Your task to perform on an android device: turn off javascript in the chrome app Image 0: 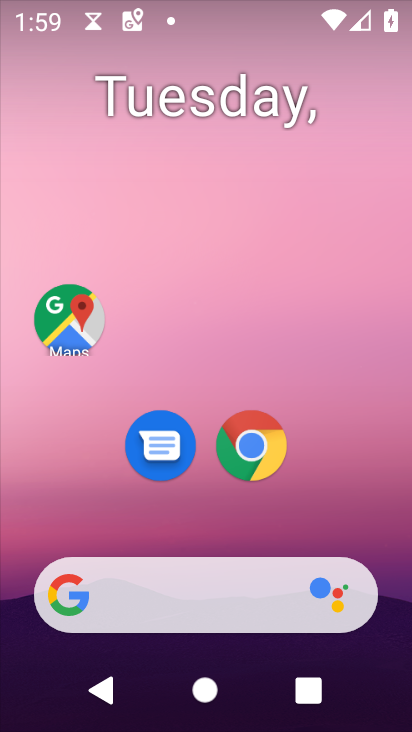
Step 0: click (235, 420)
Your task to perform on an android device: turn off javascript in the chrome app Image 1: 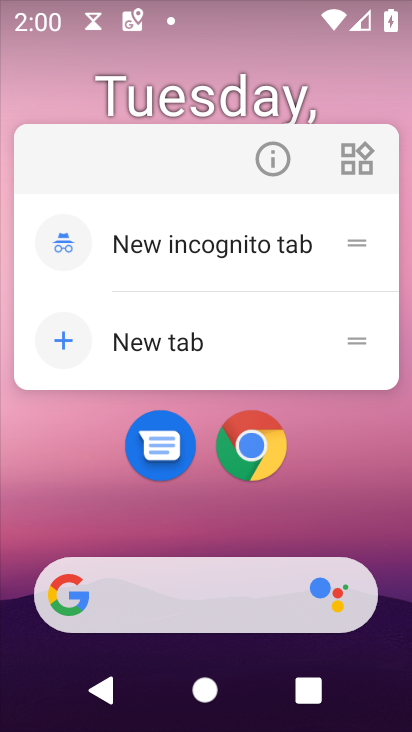
Step 1: click (255, 449)
Your task to perform on an android device: turn off javascript in the chrome app Image 2: 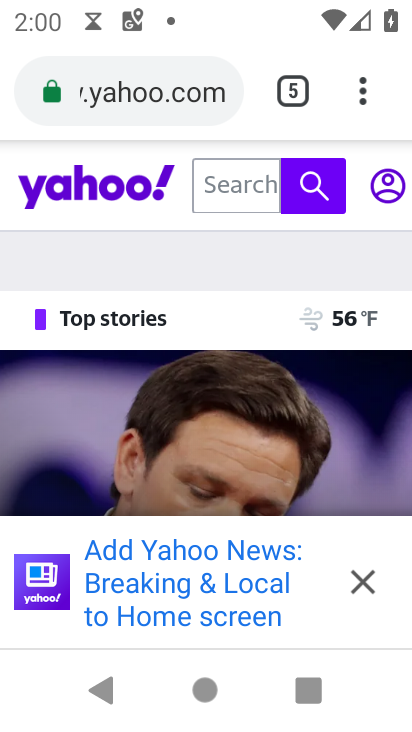
Step 2: drag from (367, 97) to (153, 477)
Your task to perform on an android device: turn off javascript in the chrome app Image 3: 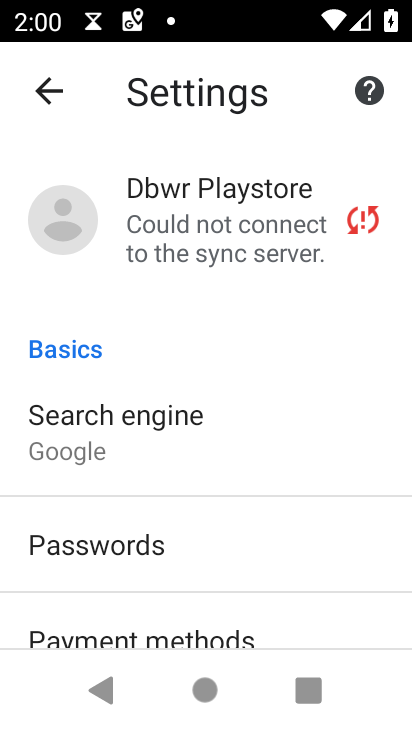
Step 3: drag from (220, 584) to (135, 250)
Your task to perform on an android device: turn off javascript in the chrome app Image 4: 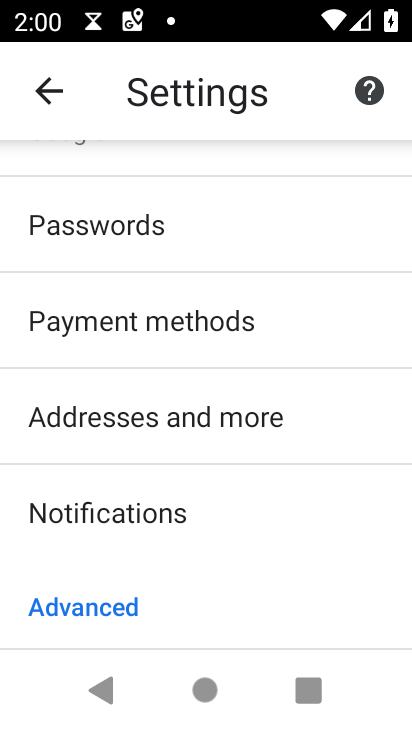
Step 4: drag from (226, 569) to (208, 244)
Your task to perform on an android device: turn off javascript in the chrome app Image 5: 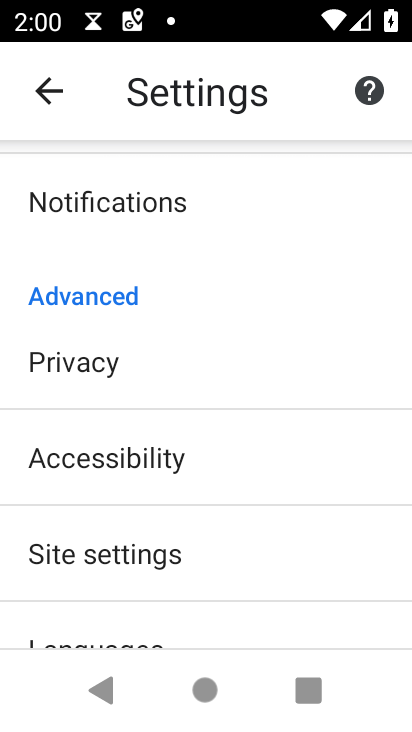
Step 5: drag from (194, 573) to (190, 305)
Your task to perform on an android device: turn off javascript in the chrome app Image 6: 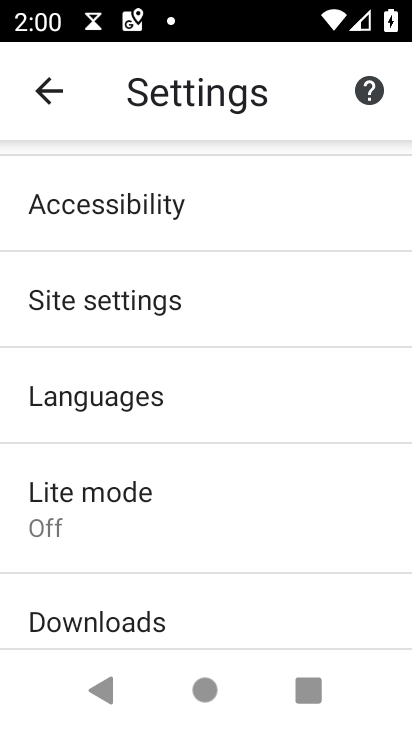
Step 6: click (102, 293)
Your task to perform on an android device: turn off javascript in the chrome app Image 7: 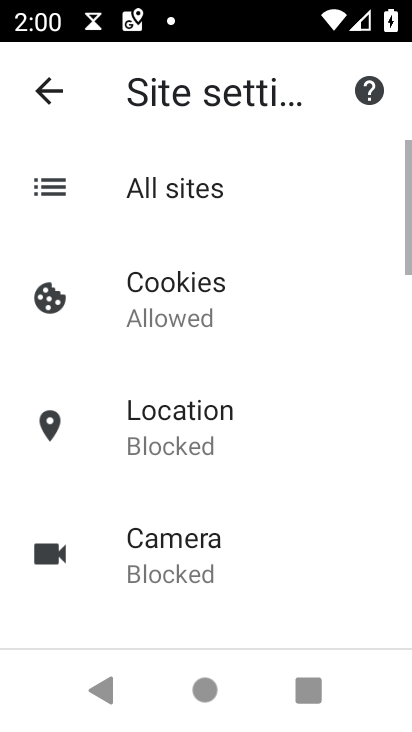
Step 7: drag from (253, 563) to (261, 242)
Your task to perform on an android device: turn off javascript in the chrome app Image 8: 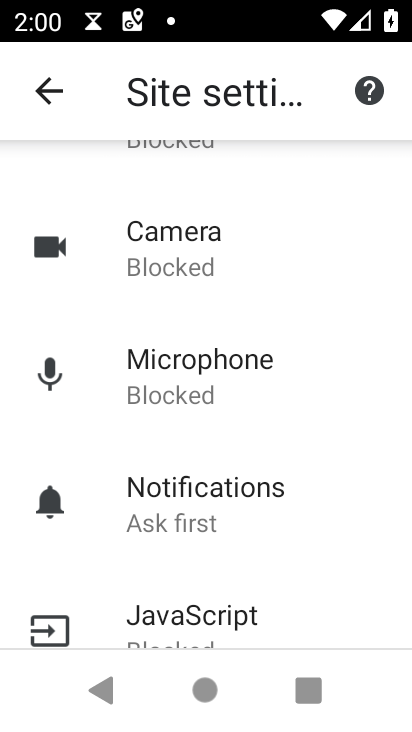
Step 8: drag from (292, 545) to (277, 229)
Your task to perform on an android device: turn off javascript in the chrome app Image 9: 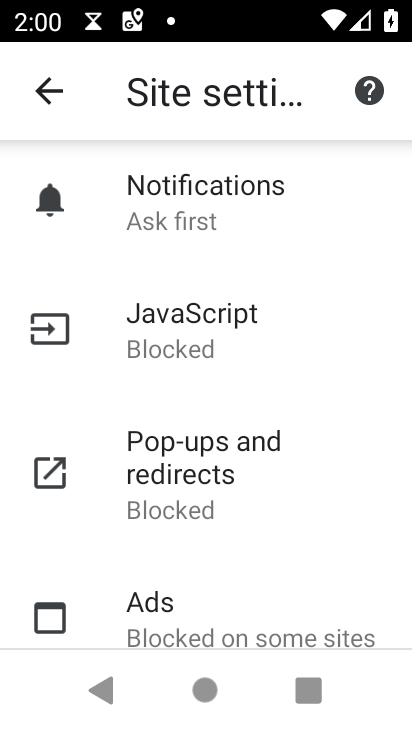
Step 9: click (182, 318)
Your task to perform on an android device: turn off javascript in the chrome app Image 10: 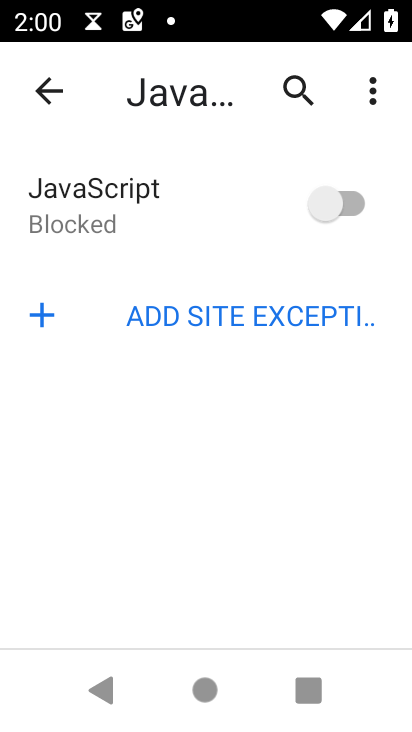
Step 10: task complete